Your task to perform on an android device: change the clock style Image 0: 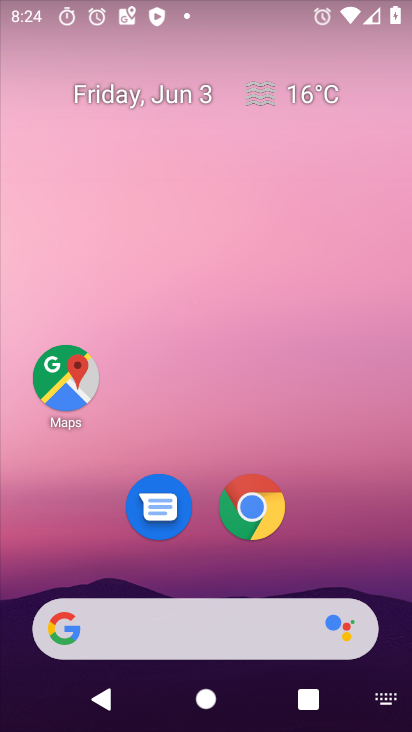
Step 0: drag from (250, 168) to (137, 0)
Your task to perform on an android device: change the clock style Image 1: 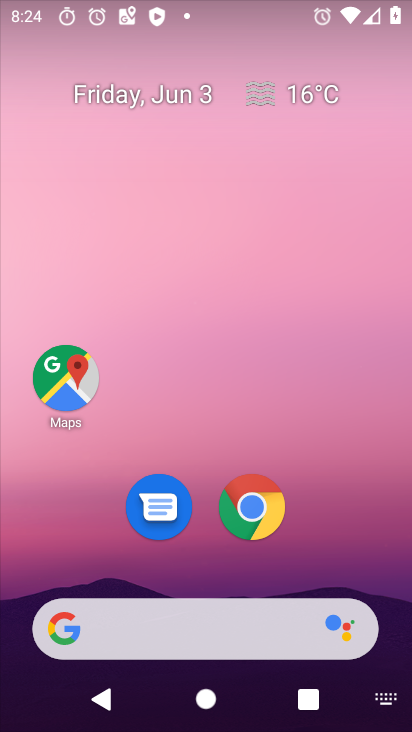
Step 1: drag from (331, 412) to (215, 13)
Your task to perform on an android device: change the clock style Image 2: 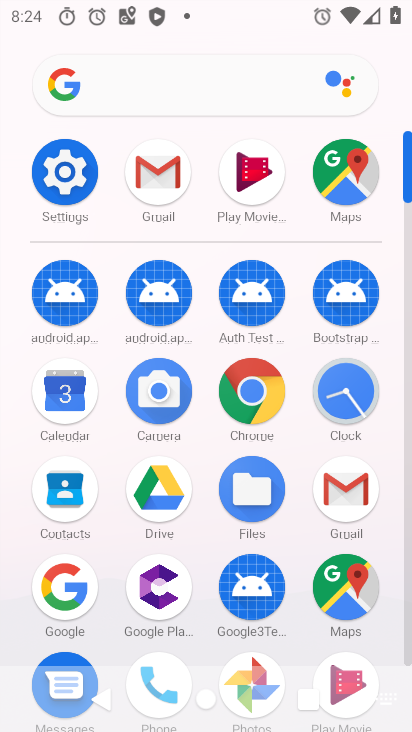
Step 2: click (354, 401)
Your task to perform on an android device: change the clock style Image 3: 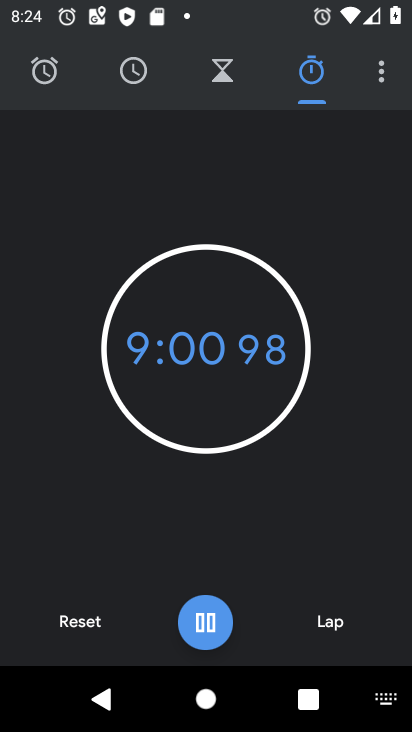
Step 3: click (376, 74)
Your task to perform on an android device: change the clock style Image 4: 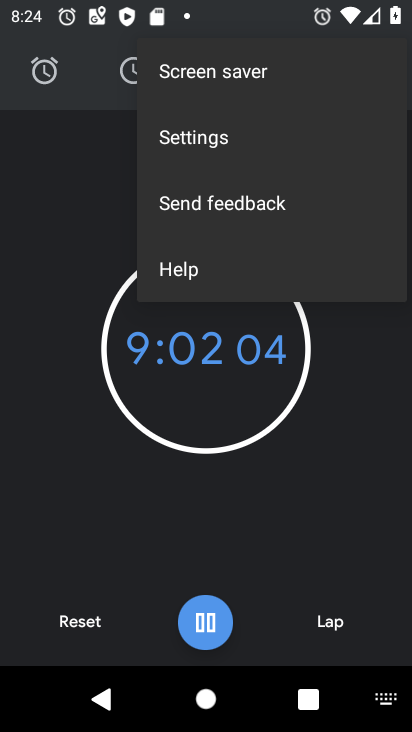
Step 4: click (286, 141)
Your task to perform on an android device: change the clock style Image 5: 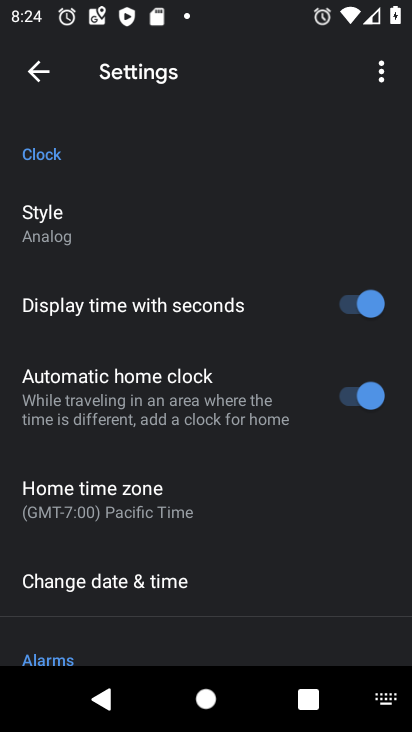
Step 5: click (118, 227)
Your task to perform on an android device: change the clock style Image 6: 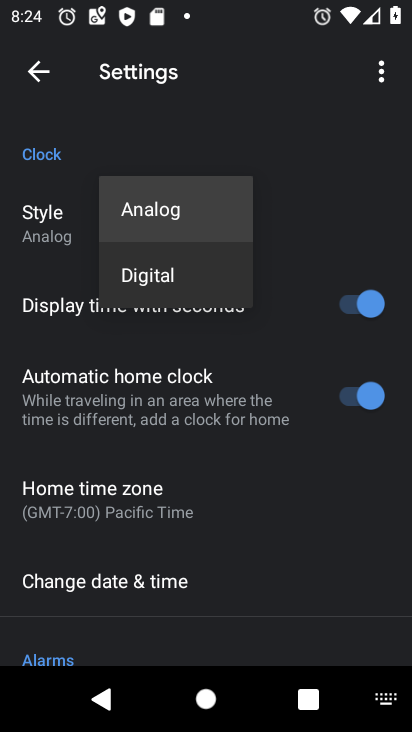
Step 6: click (173, 284)
Your task to perform on an android device: change the clock style Image 7: 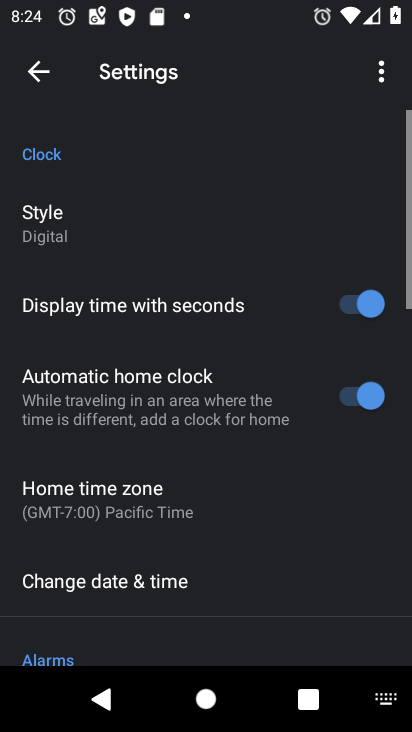
Step 7: task complete